Your task to perform on an android device: Go to calendar. Show me events next week Image 0: 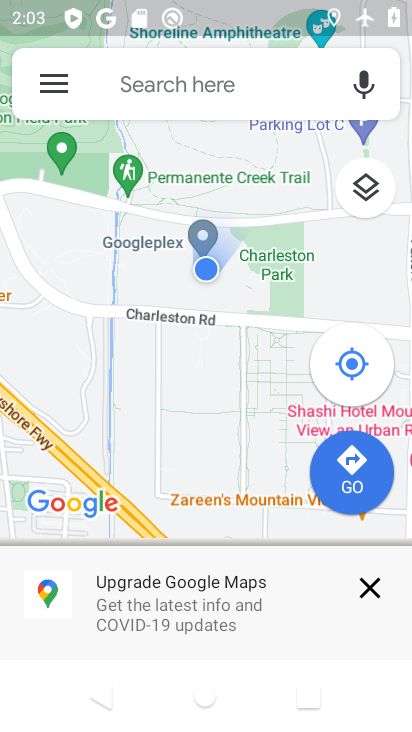
Step 0: press back button
Your task to perform on an android device: Go to calendar. Show me events next week Image 1: 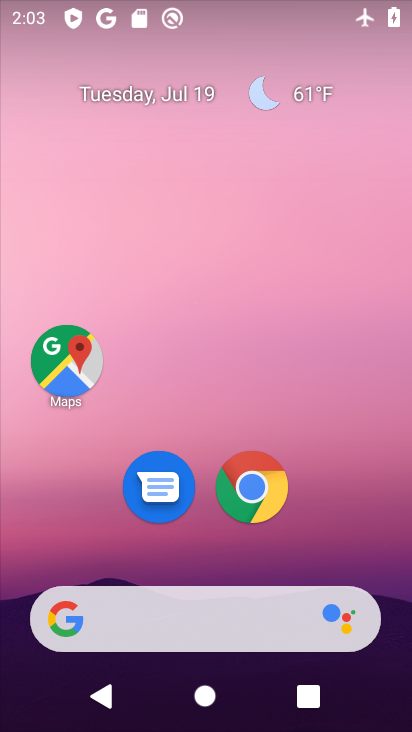
Step 1: drag from (192, 548) to (287, 0)
Your task to perform on an android device: Go to calendar. Show me events next week Image 2: 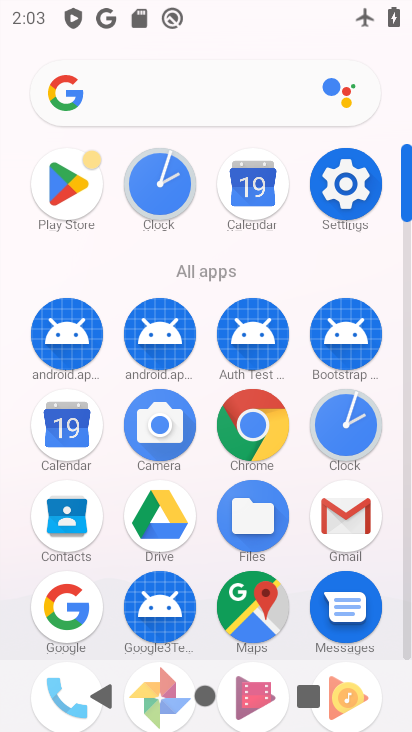
Step 2: click (84, 448)
Your task to perform on an android device: Go to calendar. Show me events next week Image 3: 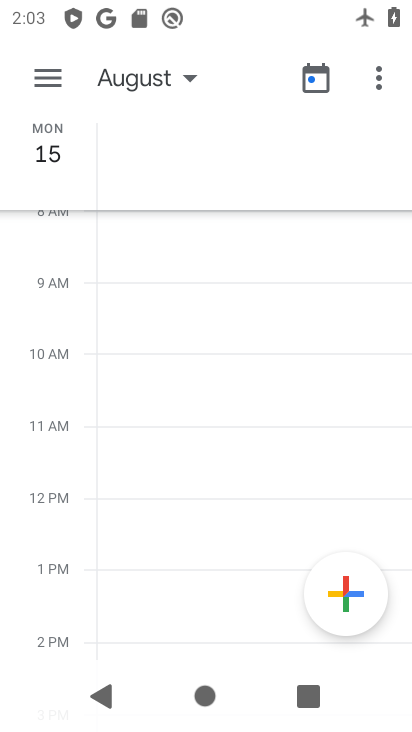
Step 3: click (124, 79)
Your task to perform on an android device: Go to calendar. Show me events next week Image 4: 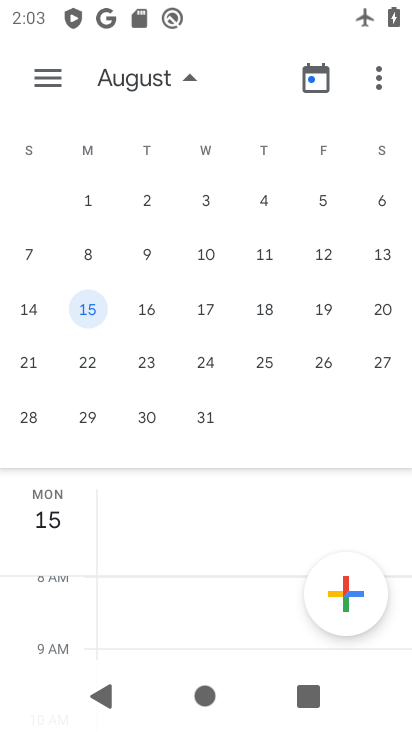
Step 4: drag from (62, 255) to (407, 276)
Your task to perform on an android device: Go to calendar. Show me events next week Image 5: 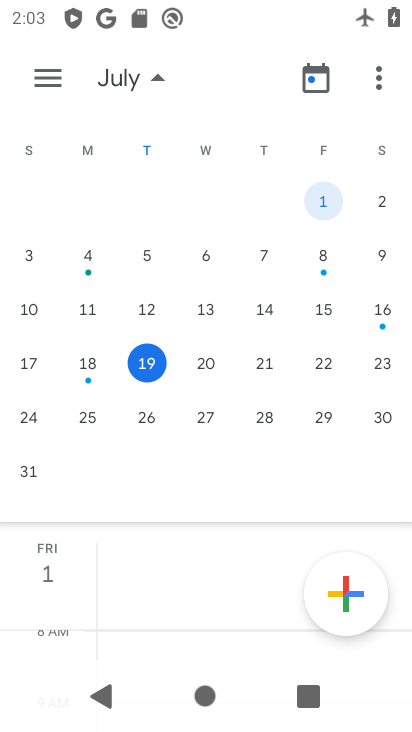
Step 5: click (82, 407)
Your task to perform on an android device: Go to calendar. Show me events next week Image 6: 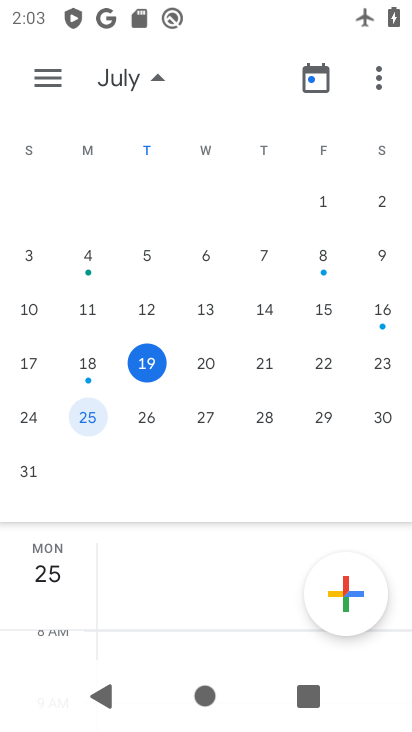
Step 6: drag from (203, 532) to (232, 268)
Your task to perform on an android device: Go to calendar. Show me events next week Image 7: 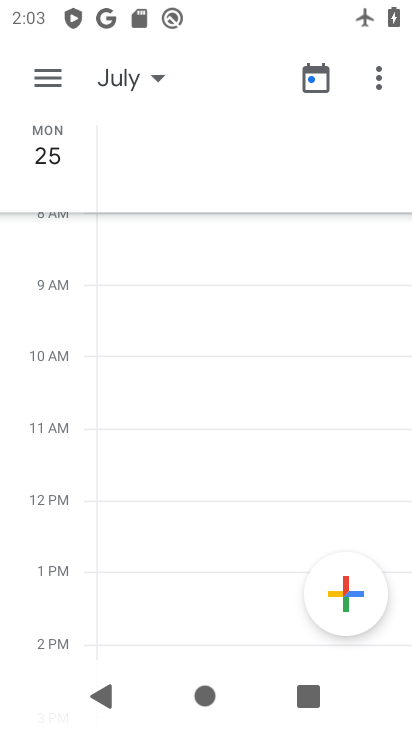
Step 7: click (33, 66)
Your task to perform on an android device: Go to calendar. Show me events next week Image 8: 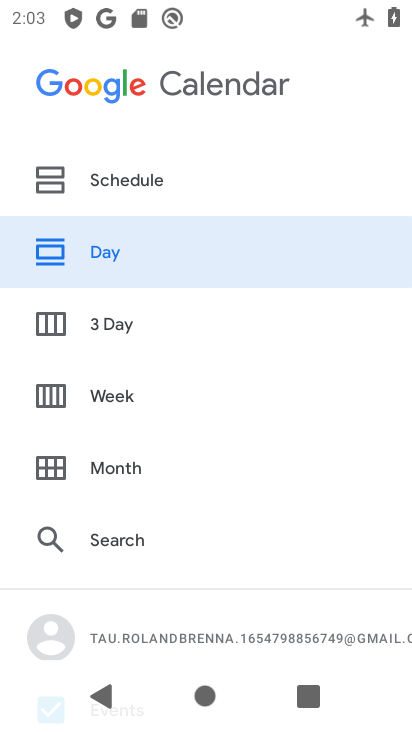
Step 8: click (120, 181)
Your task to perform on an android device: Go to calendar. Show me events next week Image 9: 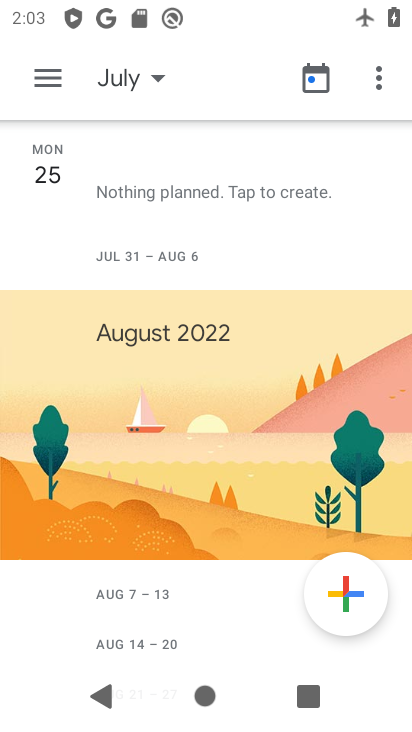
Step 9: task complete